Your task to perform on an android device: Go to Google Image 0: 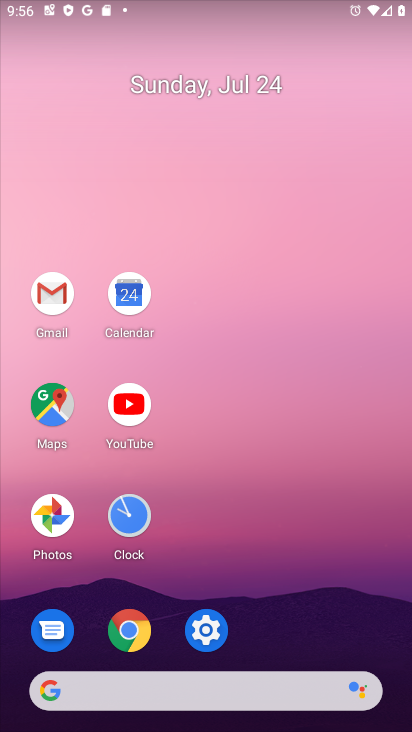
Step 0: click (145, 694)
Your task to perform on an android device: Go to Google Image 1: 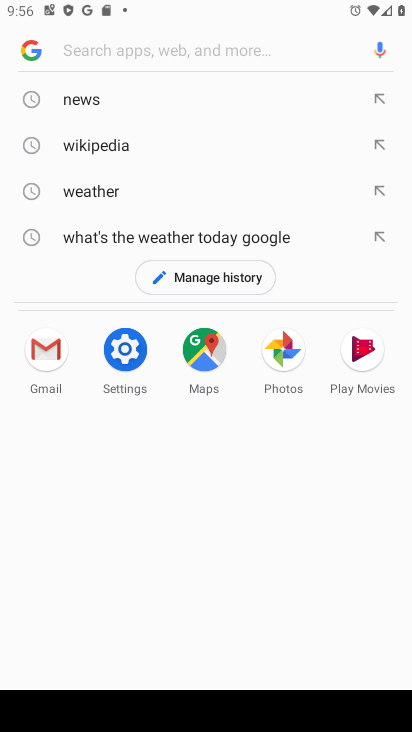
Step 1: click (30, 48)
Your task to perform on an android device: Go to Google Image 2: 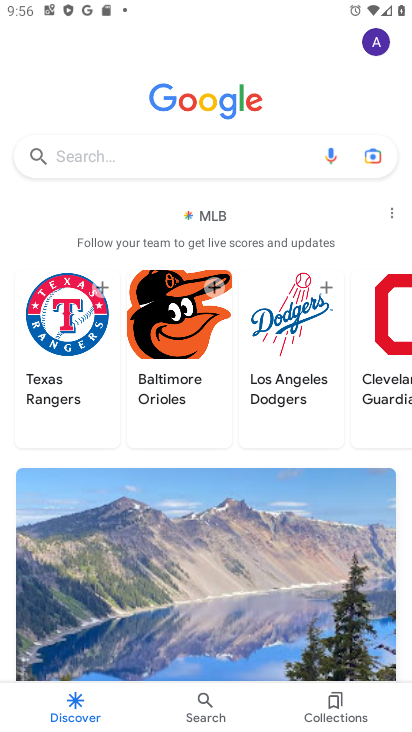
Step 2: task complete